Your task to perform on an android device: uninstall "Roku - Official Remote Control" Image 0: 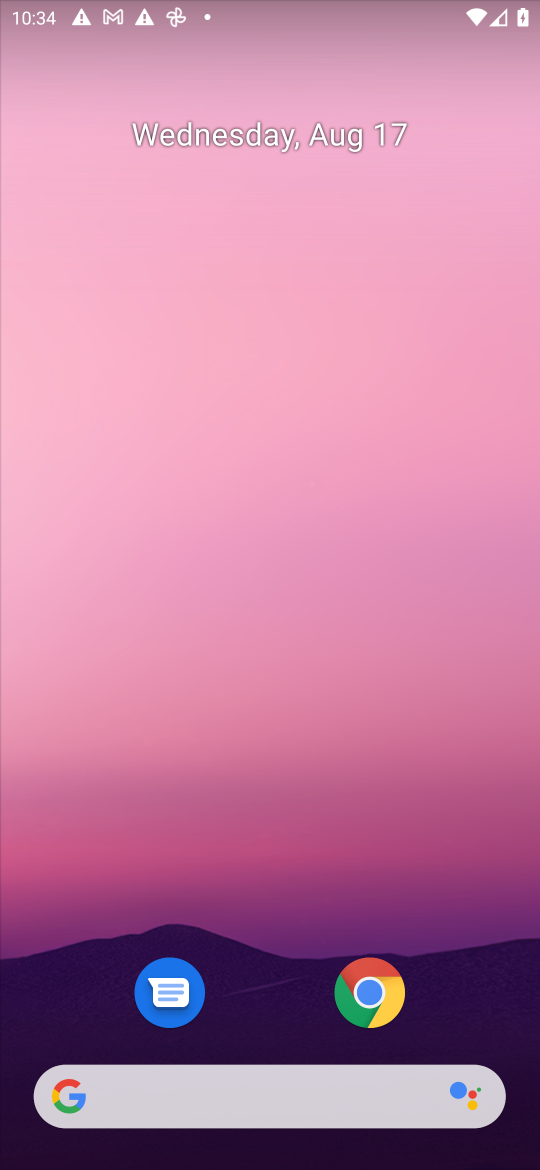
Step 0: drag from (484, 990) to (225, 119)
Your task to perform on an android device: uninstall "Roku - Official Remote Control" Image 1: 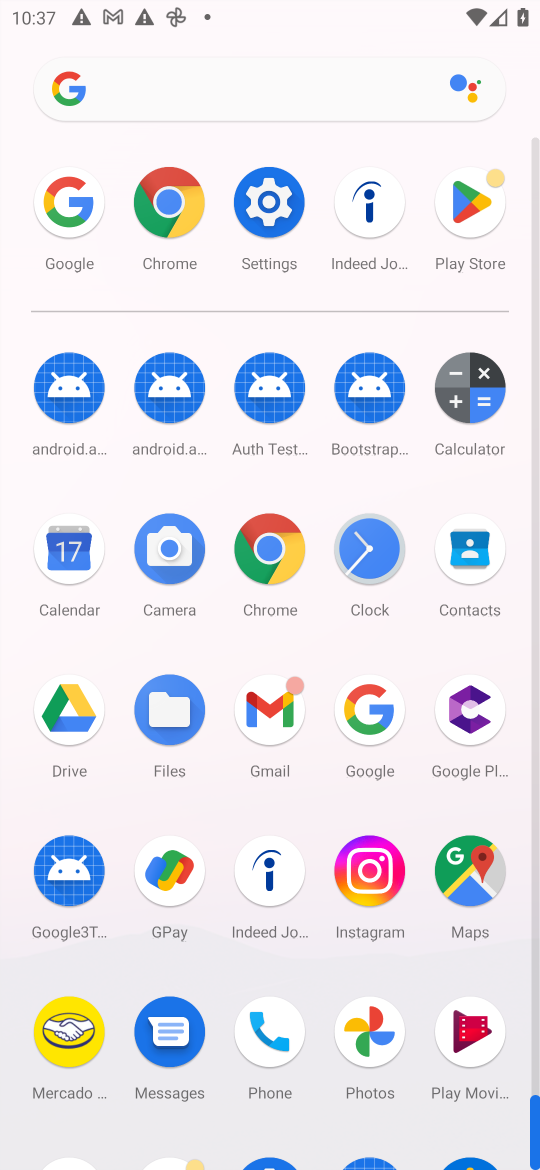
Step 1: click (479, 208)
Your task to perform on an android device: uninstall "Roku - Official Remote Control" Image 2: 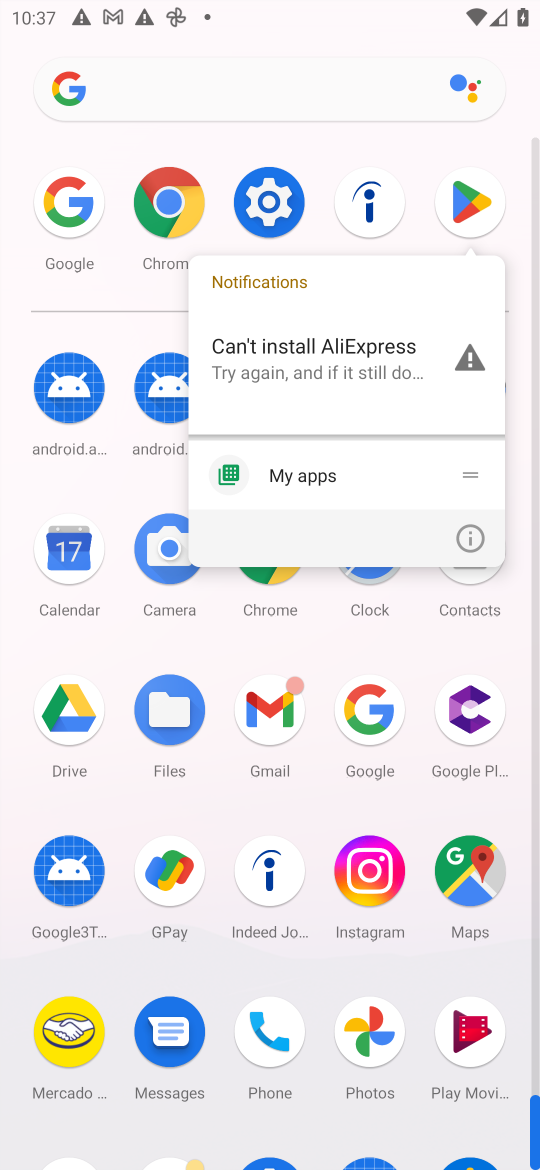
Step 2: click (461, 205)
Your task to perform on an android device: uninstall "Roku - Official Remote Control" Image 3: 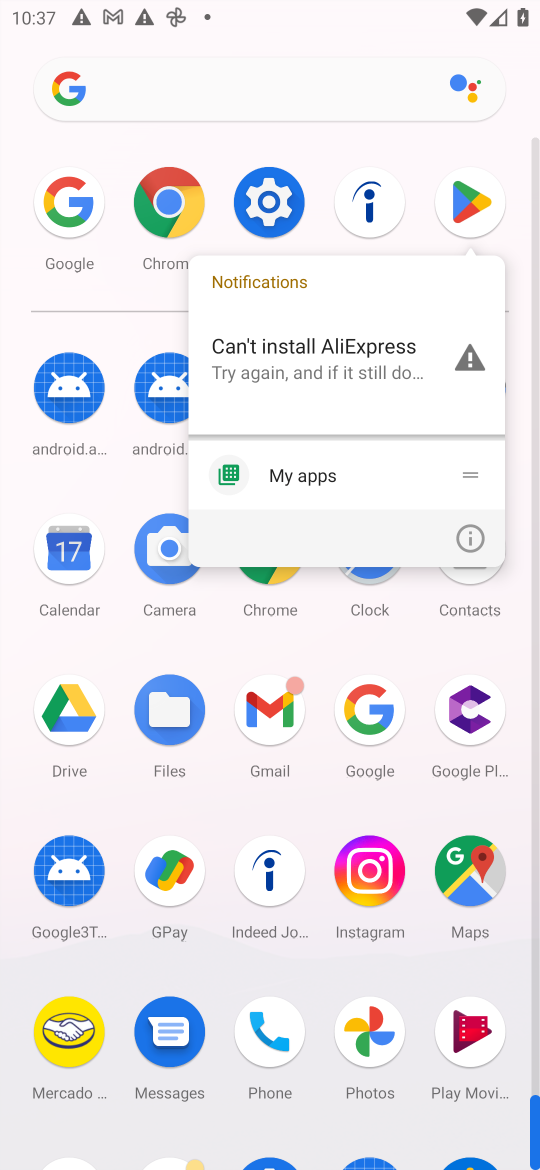
Step 3: click (461, 205)
Your task to perform on an android device: uninstall "Roku - Official Remote Control" Image 4: 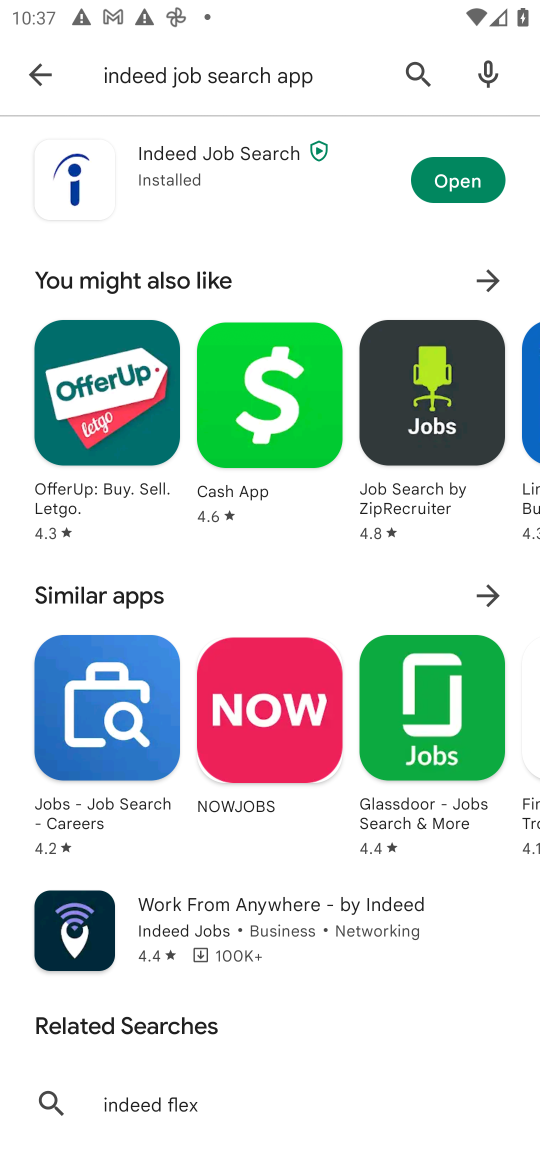
Step 4: press back button
Your task to perform on an android device: uninstall "Roku - Official Remote Control" Image 5: 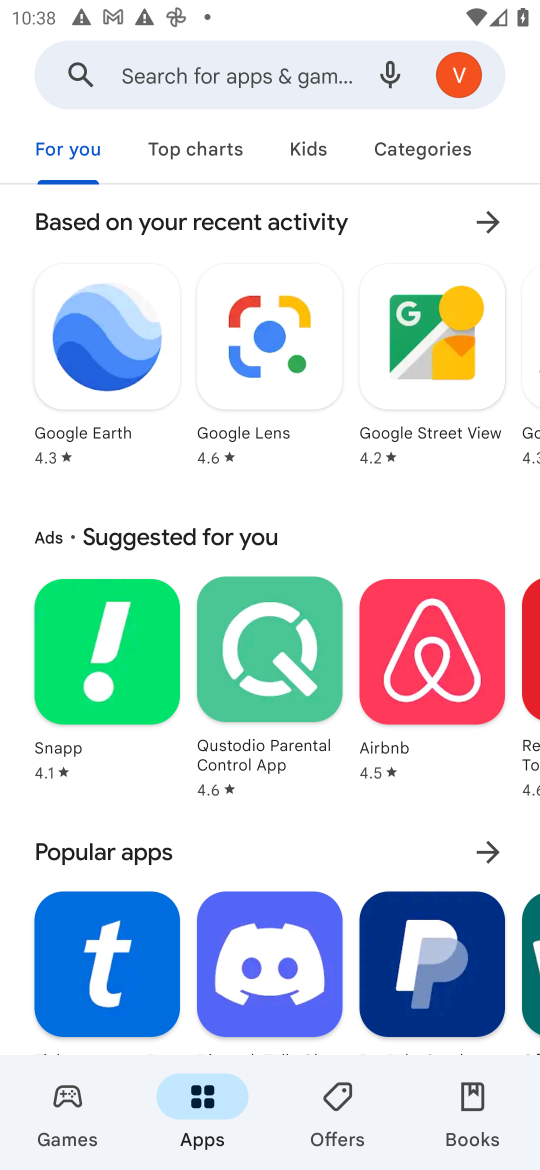
Step 5: click (238, 72)
Your task to perform on an android device: uninstall "Roku - Official Remote Control" Image 6: 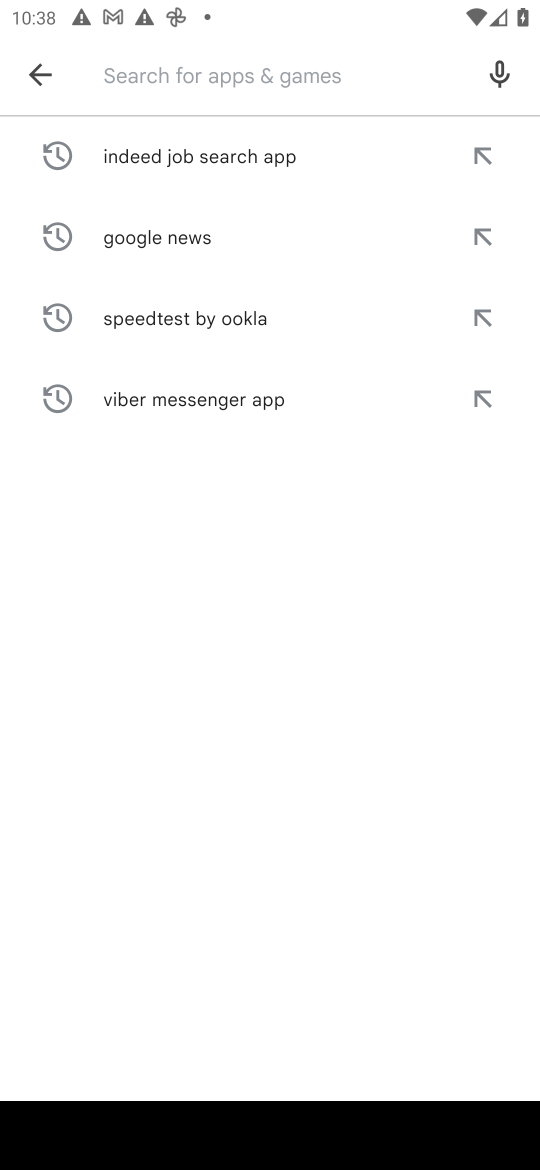
Step 6: type "Roku - Official Remote Control'"
Your task to perform on an android device: uninstall "Roku - Official Remote Control" Image 7: 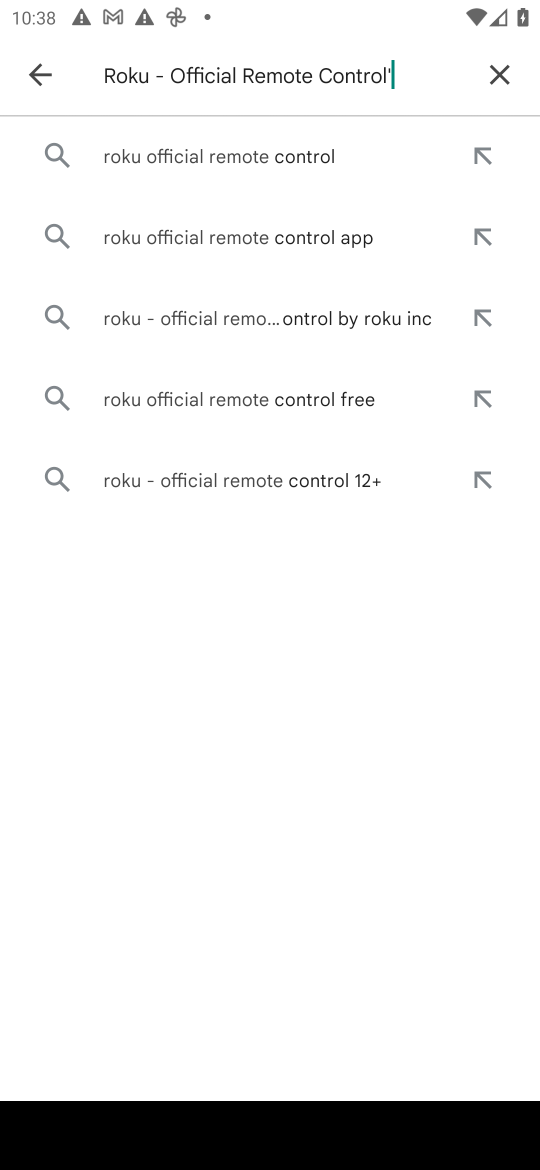
Step 7: click (238, 162)
Your task to perform on an android device: uninstall "Roku - Official Remote Control" Image 8: 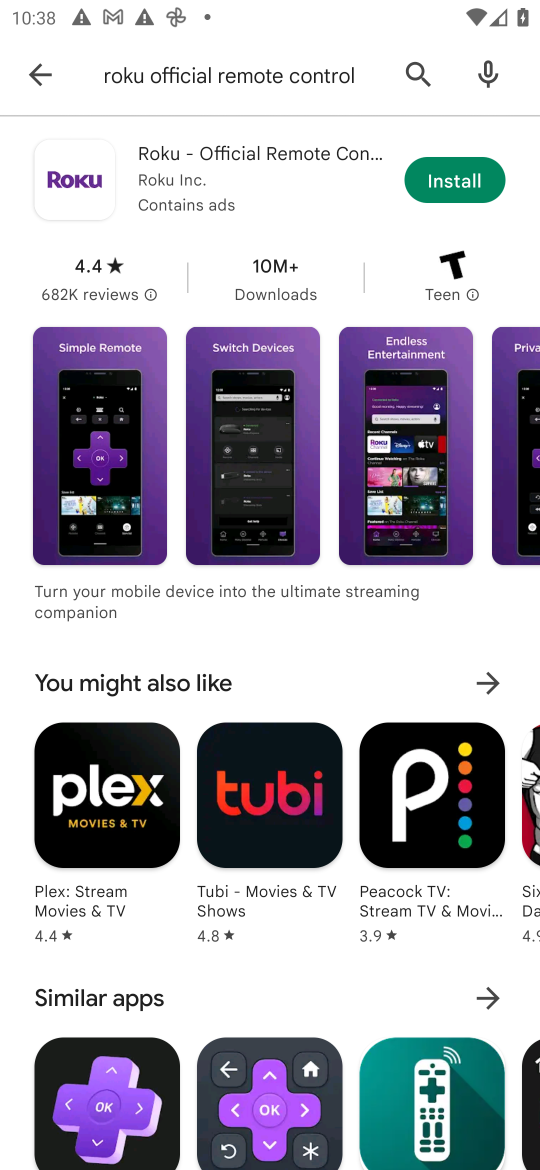
Step 8: task complete